Your task to perform on an android device: move a message to another label in the gmail app Image 0: 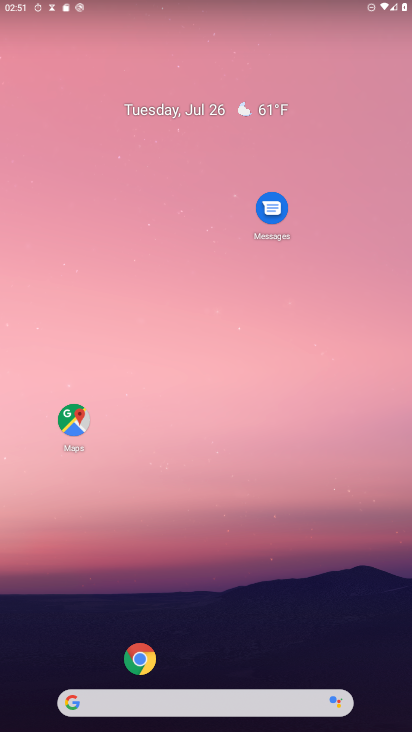
Step 0: drag from (94, 528) to (241, 125)
Your task to perform on an android device: move a message to another label in the gmail app Image 1: 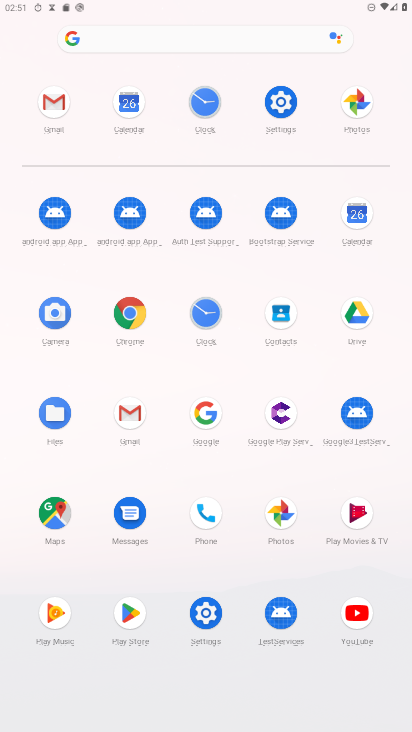
Step 1: click (120, 407)
Your task to perform on an android device: move a message to another label in the gmail app Image 2: 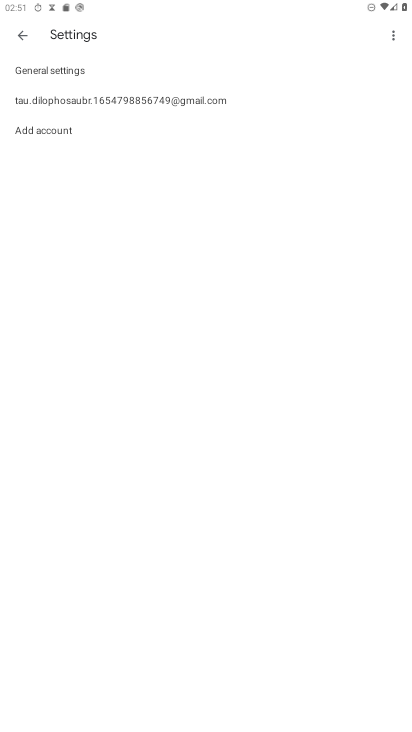
Step 2: click (23, 40)
Your task to perform on an android device: move a message to another label in the gmail app Image 3: 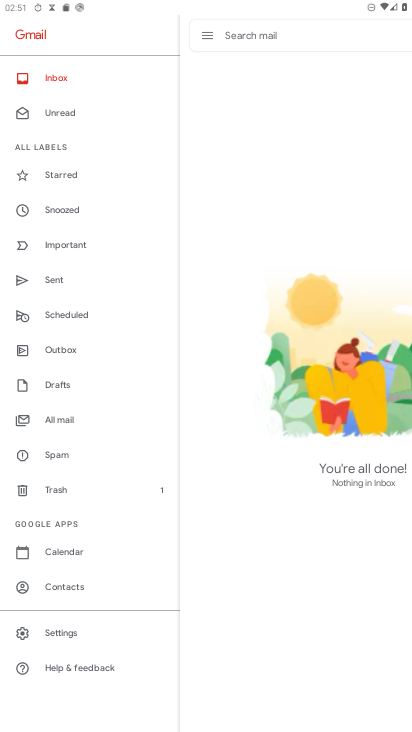
Step 3: click (80, 71)
Your task to perform on an android device: move a message to another label in the gmail app Image 4: 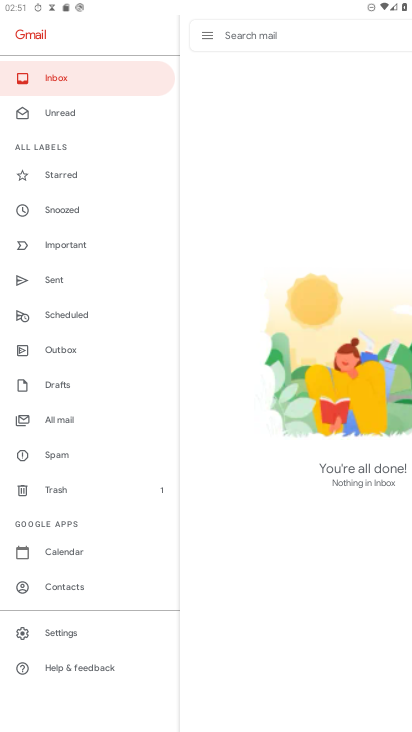
Step 4: task complete